Your task to perform on an android device: What's on my calendar today? Image 0: 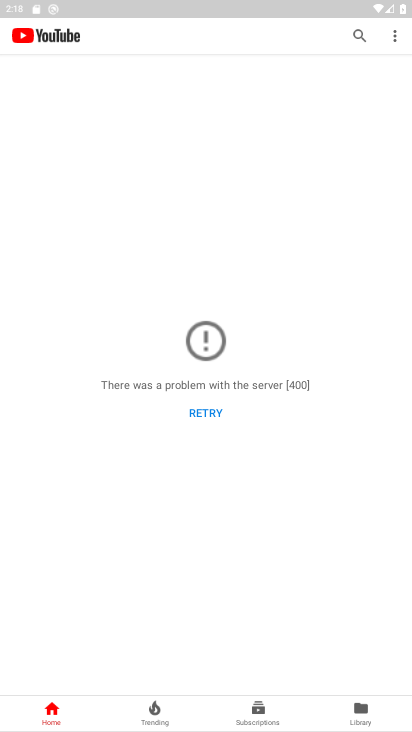
Step 0: press home button
Your task to perform on an android device: What's on my calendar today? Image 1: 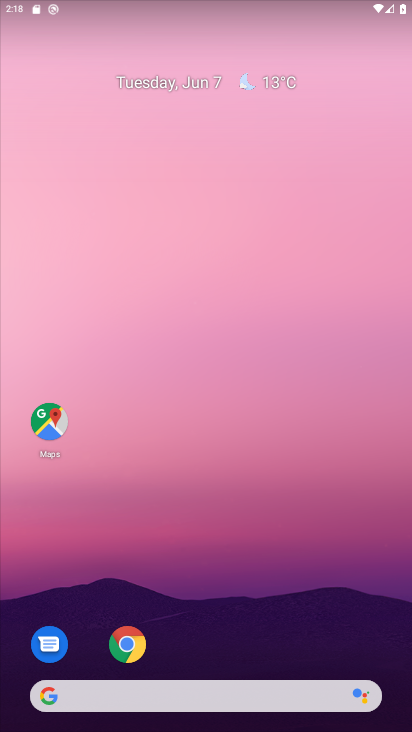
Step 1: drag from (235, 417) to (250, 88)
Your task to perform on an android device: What's on my calendar today? Image 2: 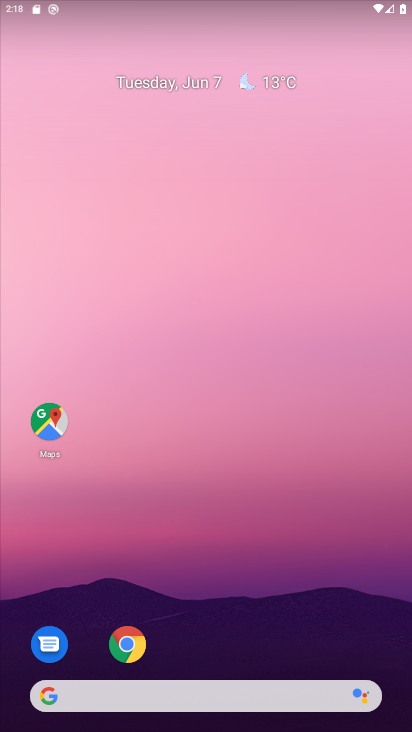
Step 2: drag from (233, 546) to (250, 76)
Your task to perform on an android device: What's on my calendar today? Image 3: 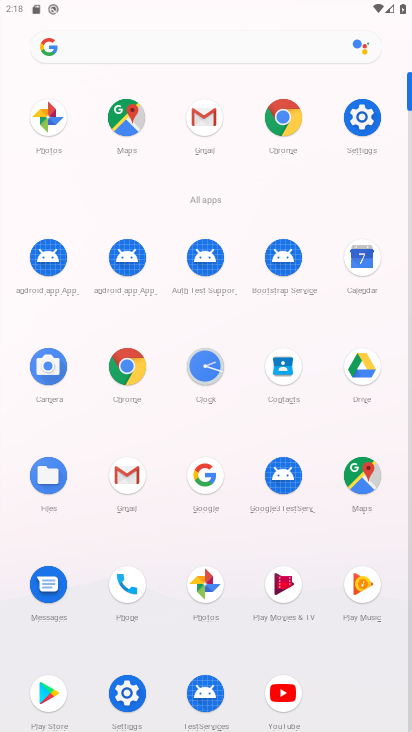
Step 3: click (359, 259)
Your task to perform on an android device: What's on my calendar today? Image 4: 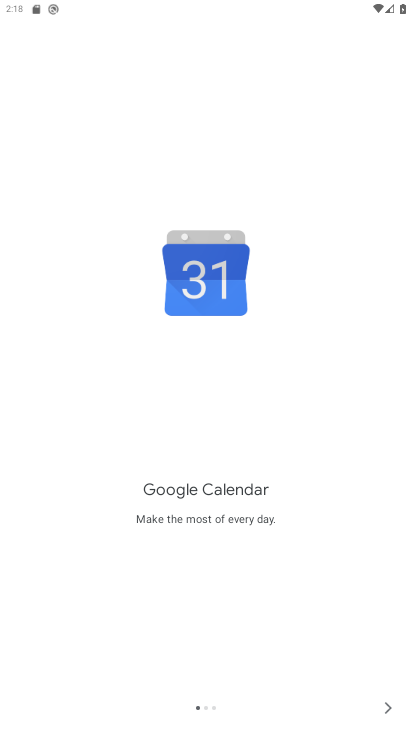
Step 4: click (384, 705)
Your task to perform on an android device: What's on my calendar today? Image 5: 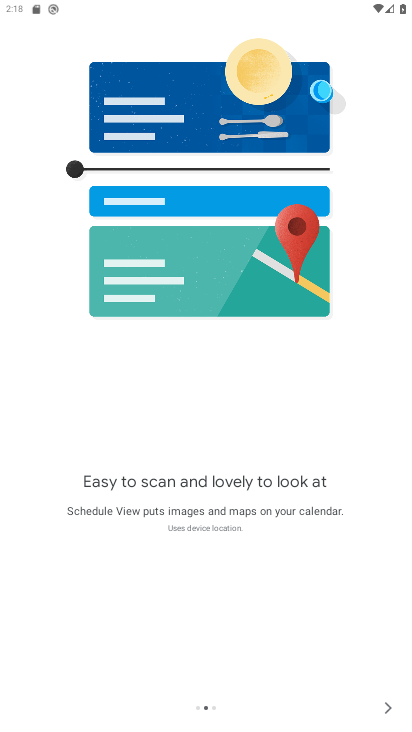
Step 5: click (379, 705)
Your task to perform on an android device: What's on my calendar today? Image 6: 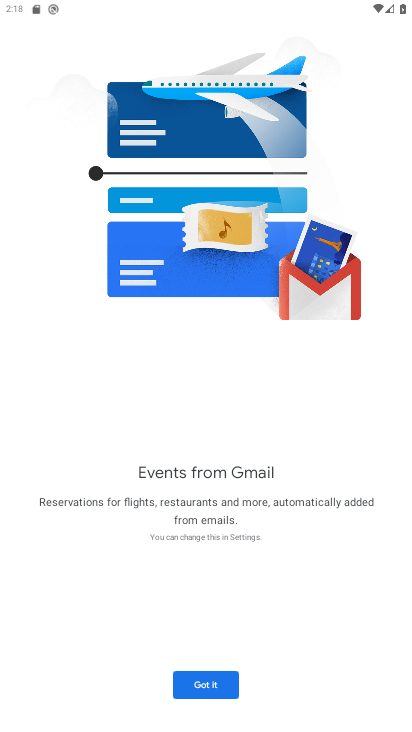
Step 6: click (214, 680)
Your task to perform on an android device: What's on my calendar today? Image 7: 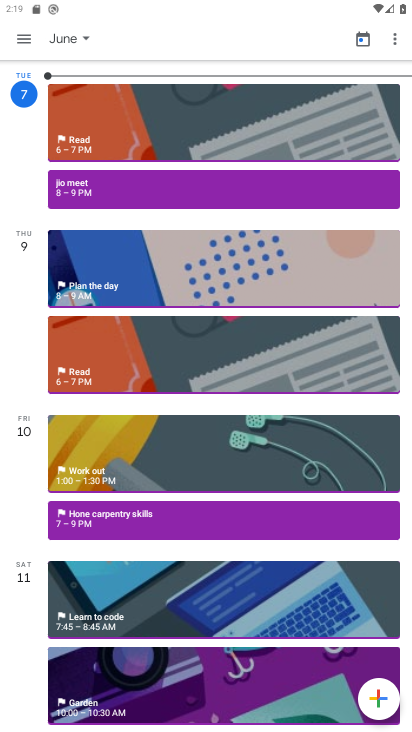
Step 7: click (17, 119)
Your task to perform on an android device: What's on my calendar today? Image 8: 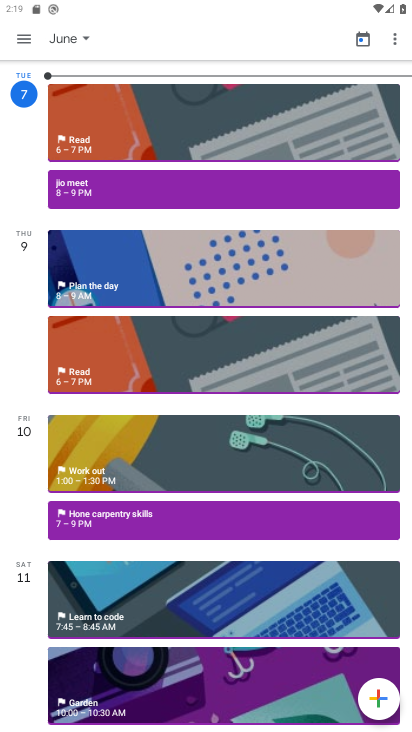
Step 8: click (33, 110)
Your task to perform on an android device: What's on my calendar today? Image 9: 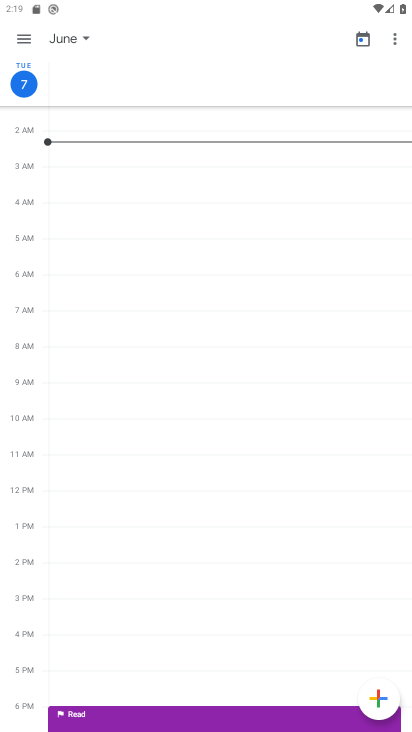
Step 9: drag from (24, 243) to (24, 199)
Your task to perform on an android device: What's on my calendar today? Image 10: 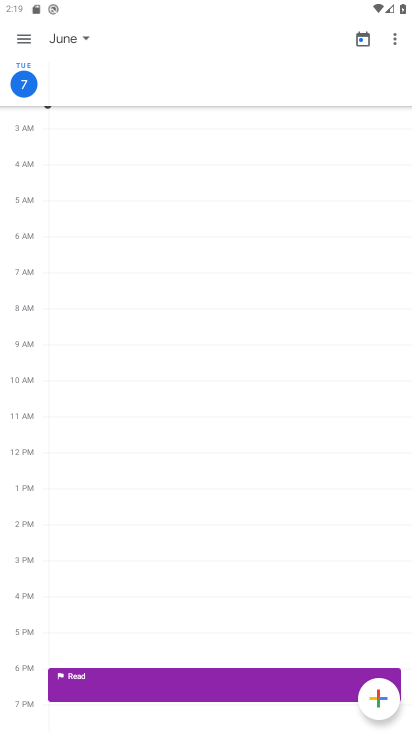
Step 10: click (31, 59)
Your task to perform on an android device: What's on my calendar today? Image 11: 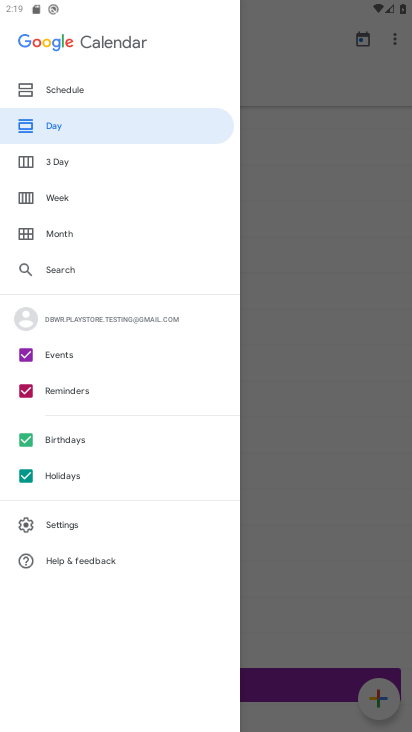
Step 11: click (349, 351)
Your task to perform on an android device: What's on my calendar today? Image 12: 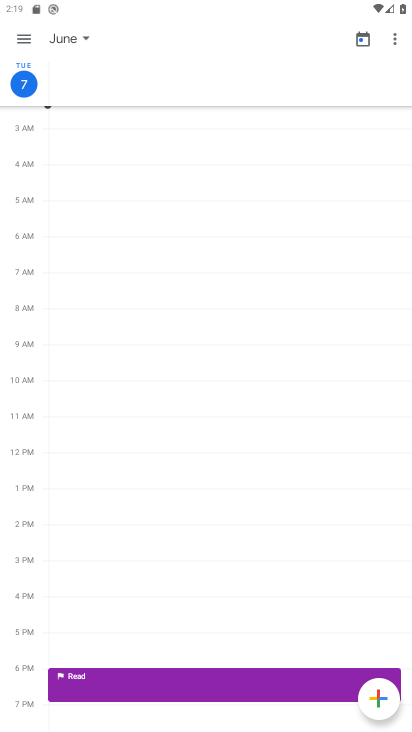
Step 12: drag from (38, 508) to (33, 187)
Your task to perform on an android device: What's on my calendar today? Image 13: 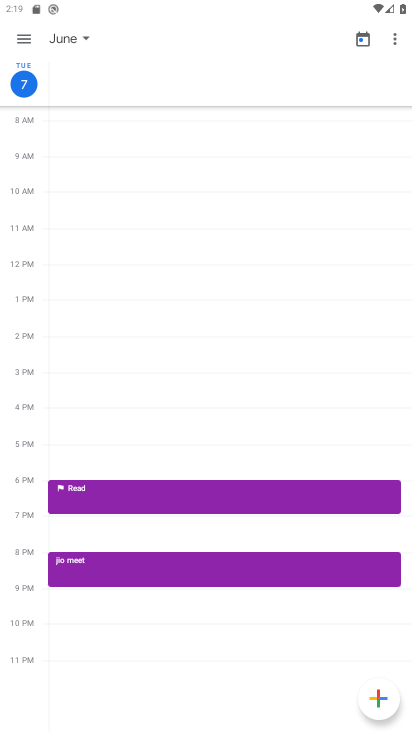
Step 13: click (37, 146)
Your task to perform on an android device: What's on my calendar today? Image 14: 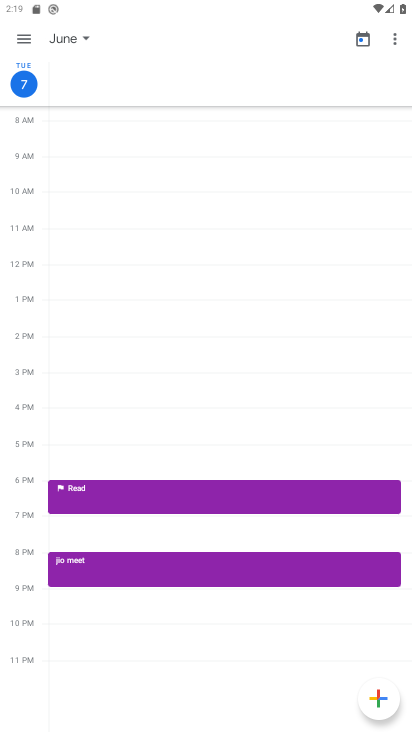
Step 14: task complete